Your task to perform on an android device: What's on my calendar today? Image 0: 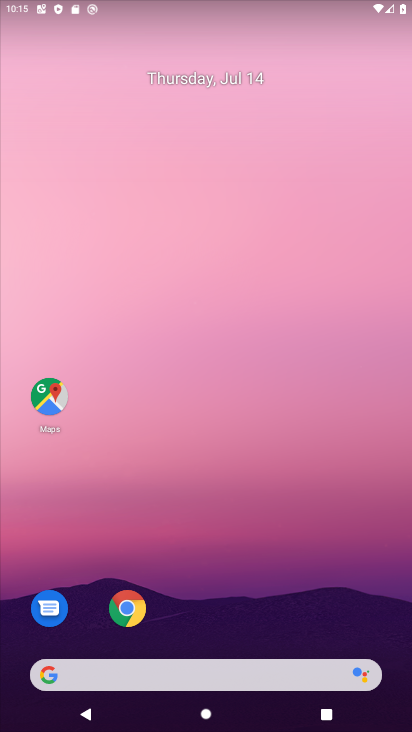
Step 0: drag from (252, 122) to (252, 50)
Your task to perform on an android device: What's on my calendar today? Image 1: 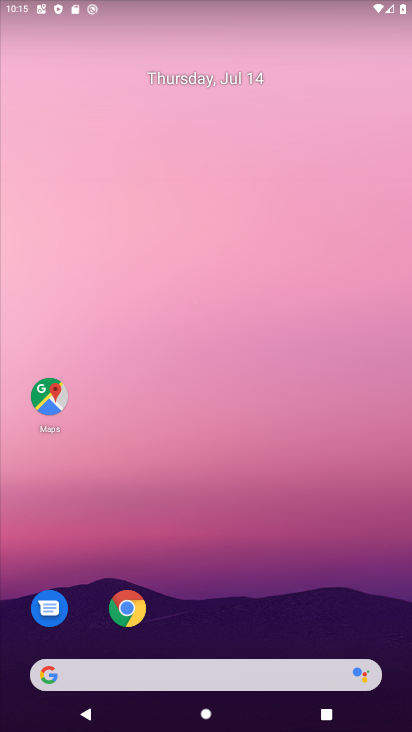
Step 1: drag from (196, 627) to (196, 267)
Your task to perform on an android device: What's on my calendar today? Image 2: 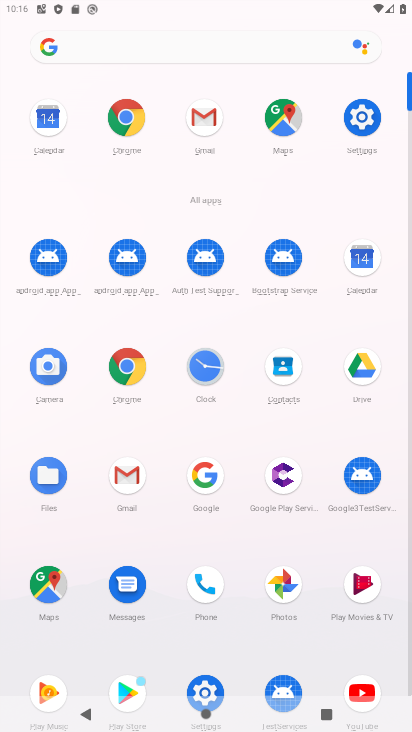
Step 2: click (368, 294)
Your task to perform on an android device: What's on my calendar today? Image 3: 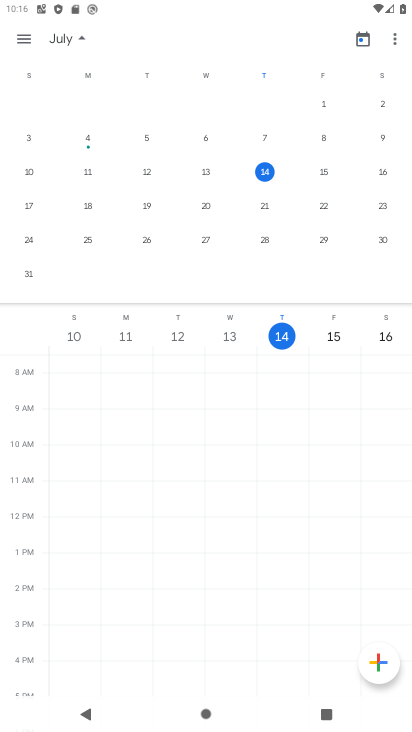
Step 3: task complete